Your task to perform on an android device: open the mobile data screen to see how much data has been used Image 0: 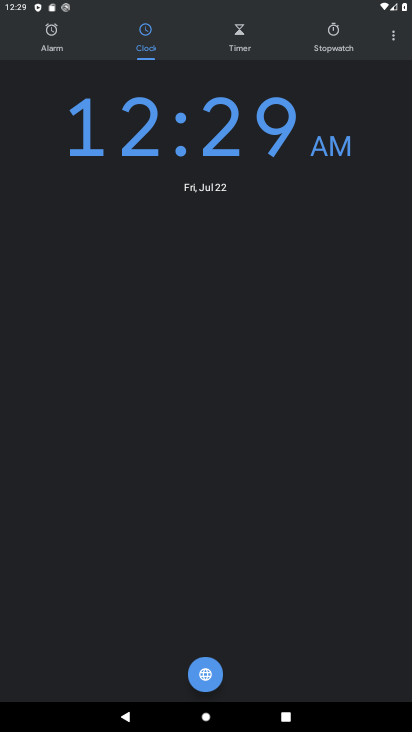
Step 0: press home button
Your task to perform on an android device: open the mobile data screen to see how much data has been used Image 1: 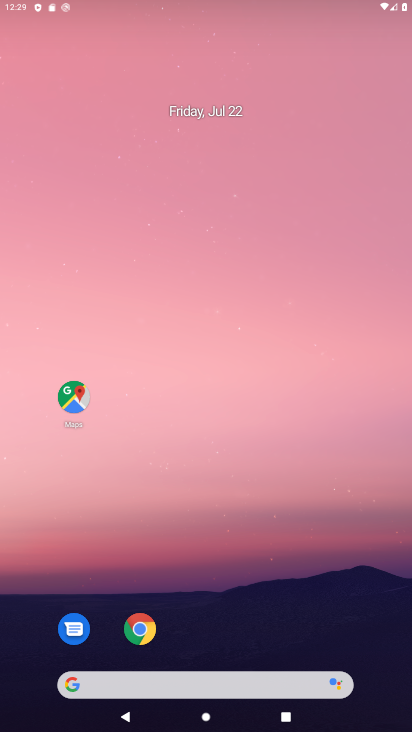
Step 1: drag from (193, 638) to (230, 47)
Your task to perform on an android device: open the mobile data screen to see how much data has been used Image 2: 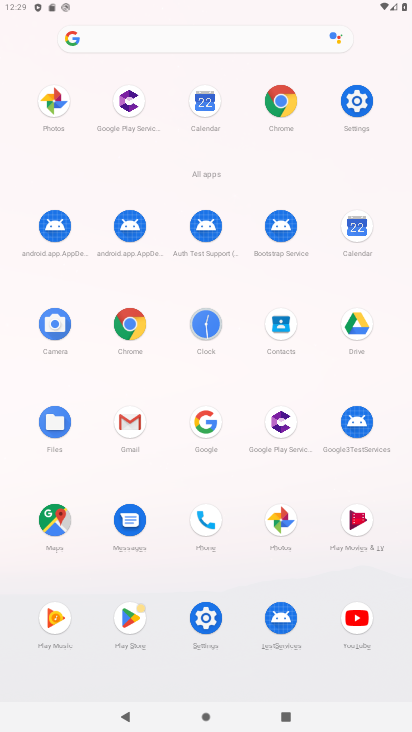
Step 2: click (205, 619)
Your task to perform on an android device: open the mobile data screen to see how much data has been used Image 3: 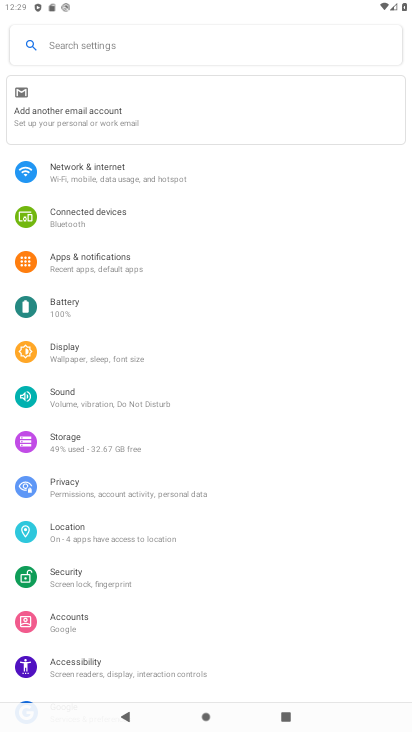
Step 3: click (114, 180)
Your task to perform on an android device: open the mobile data screen to see how much data has been used Image 4: 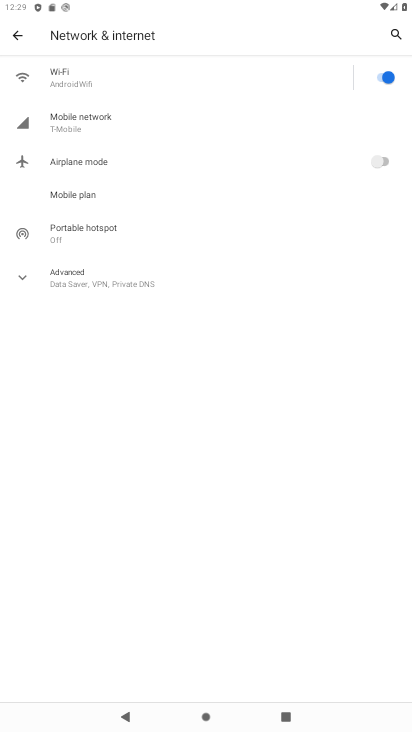
Step 4: click (116, 121)
Your task to perform on an android device: open the mobile data screen to see how much data has been used Image 5: 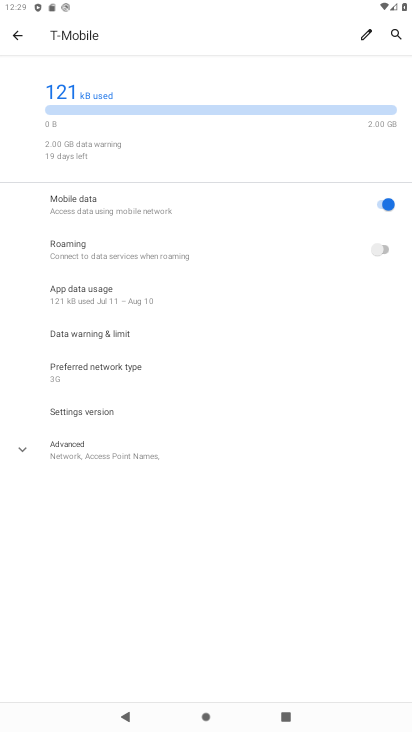
Step 5: task complete